Your task to perform on an android device: turn on javascript in the chrome app Image 0: 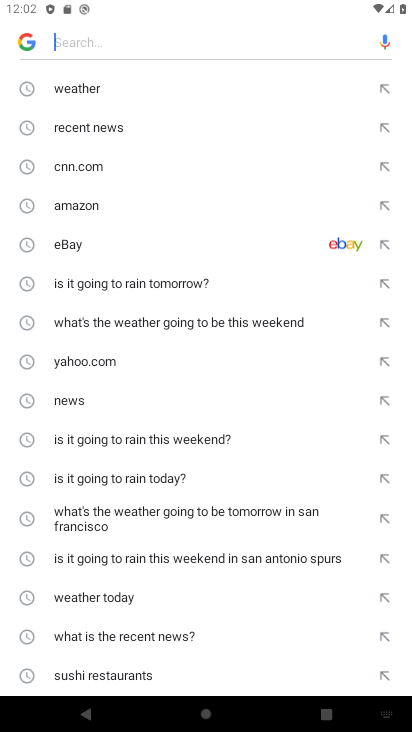
Step 0: press home button
Your task to perform on an android device: turn on javascript in the chrome app Image 1: 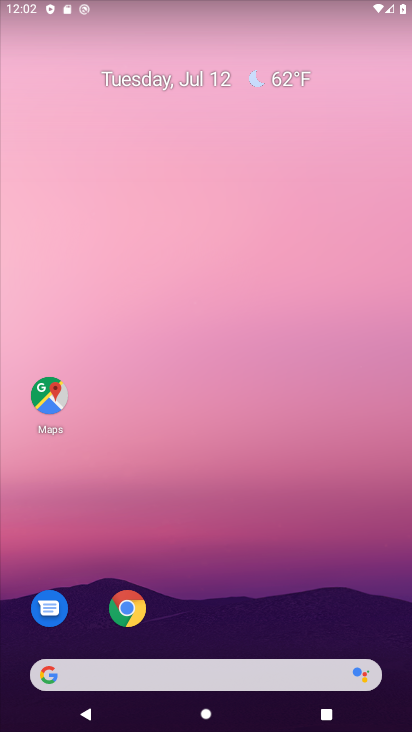
Step 1: drag from (278, 614) to (406, 0)
Your task to perform on an android device: turn on javascript in the chrome app Image 2: 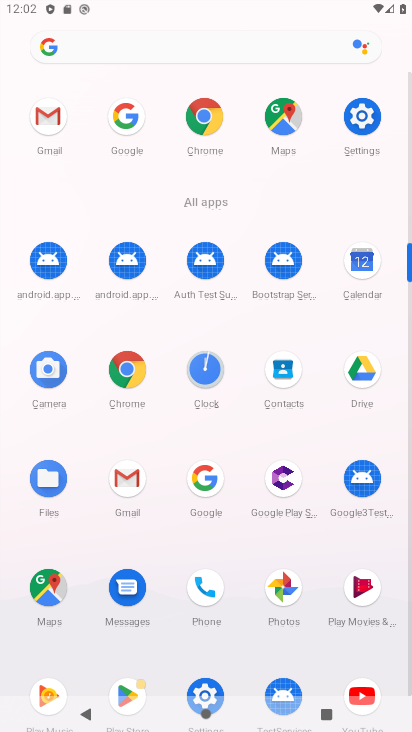
Step 2: click (205, 114)
Your task to perform on an android device: turn on javascript in the chrome app Image 3: 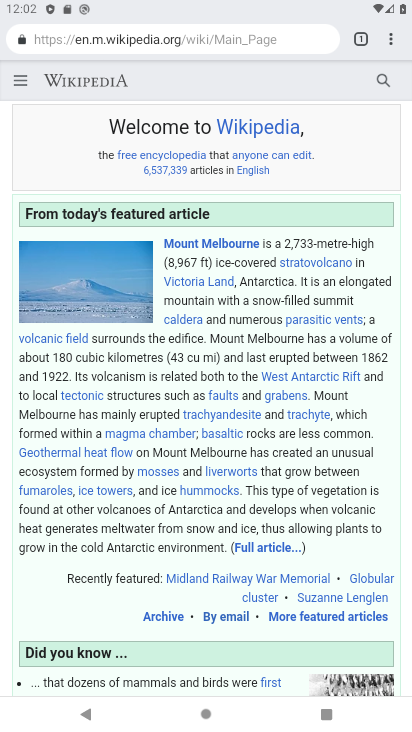
Step 3: drag from (388, 38) to (252, 483)
Your task to perform on an android device: turn on javascript in the chrome app Image 4: 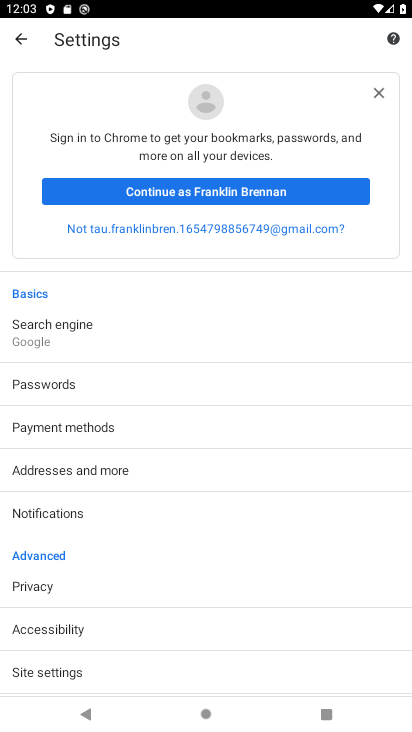
Step 4: drag from (151, 683) to (232, 188)
Your task to perform on an android device: turn on javascript in the chrome app Image 5: 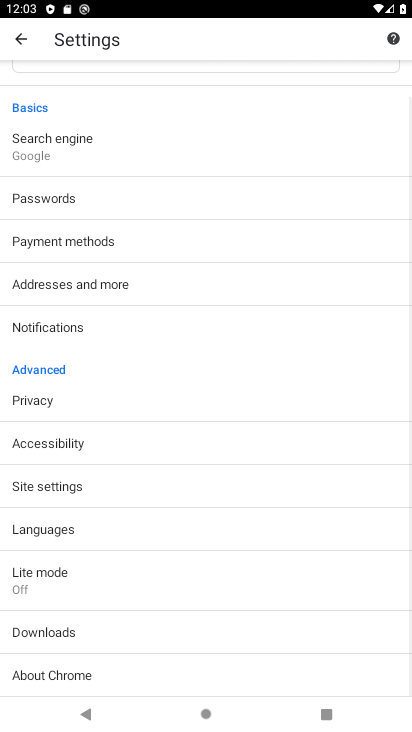
Step 5: click (28, 487)
Your task to perform on an android device: turn on javascript in the chrome app Image 6: 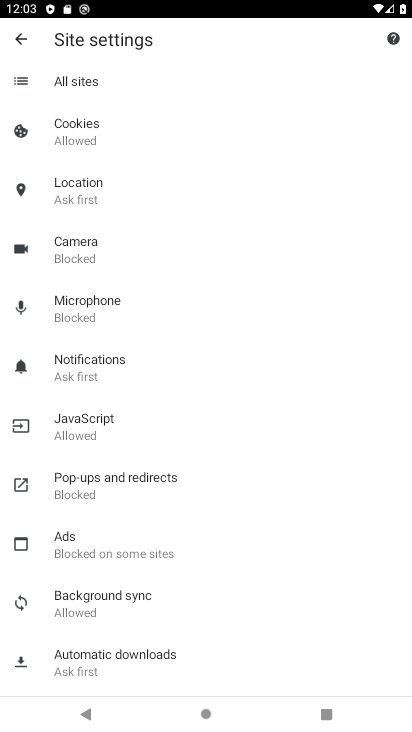
Step 6: click (79, 435)
Your task to perform on an android device: turn on javascript in the chrome app Image 7: 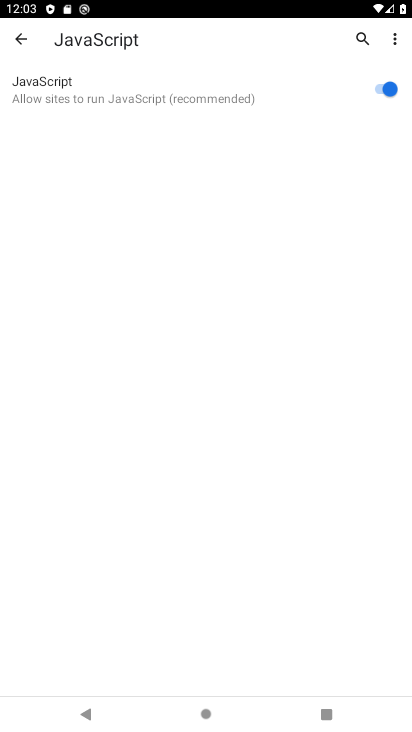
Step 7: task complete